Your task to perform on an android device: check storage Image 0: 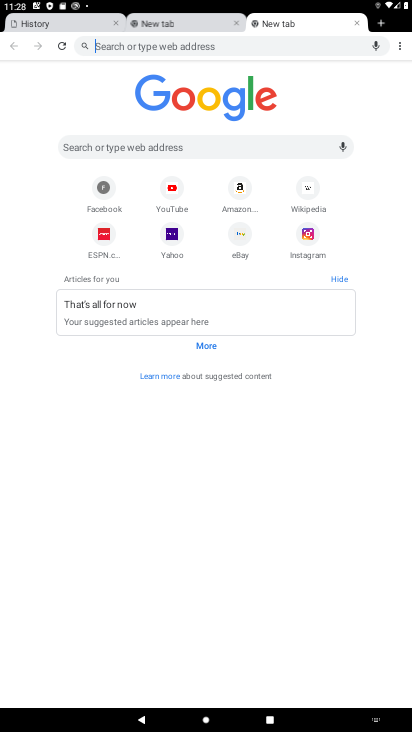
Step 0: press home button
Your task to perform on an android device: check storage Image 1: 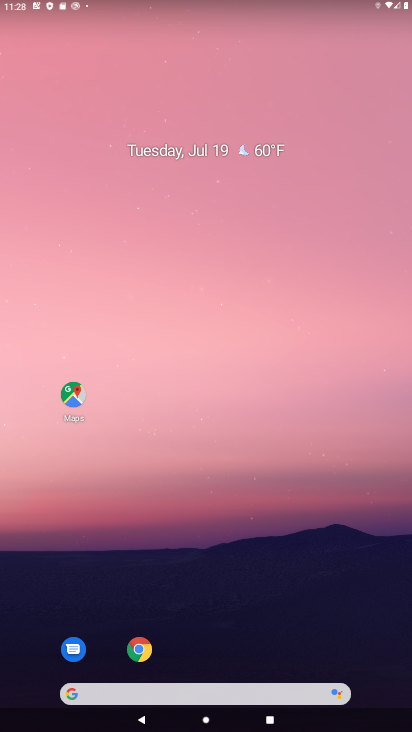
Step 1: drag from (189, 687) to (249, 92)
Your task to perform on an android device: check storage Image 2: 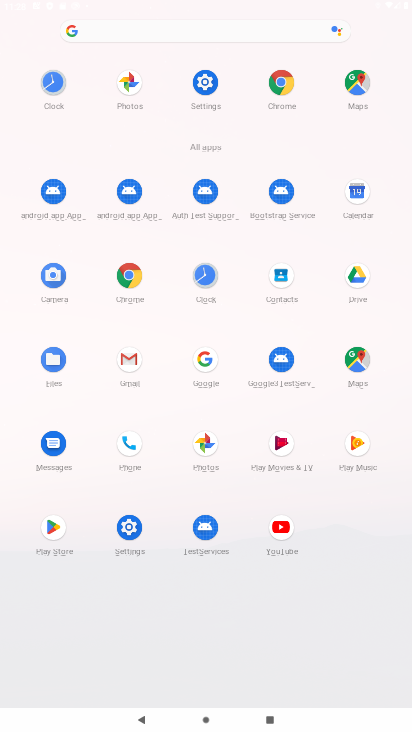
Step 2: click (196, 98)
Your task to perform on an android device: check storage Image 3: 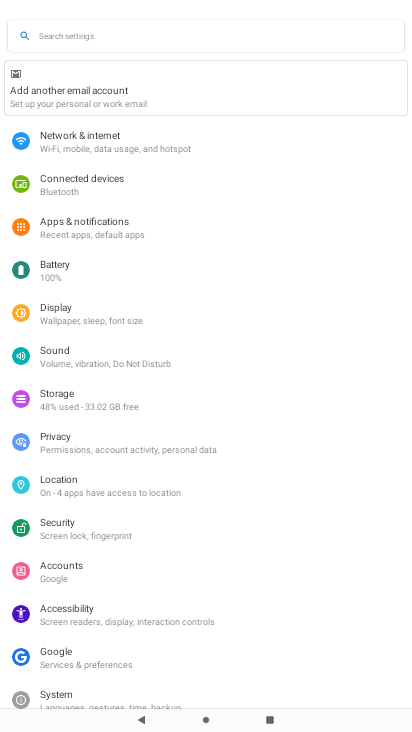
Step 3: click (62, 394)
Your task to perform on an android device: check storage Image 4: 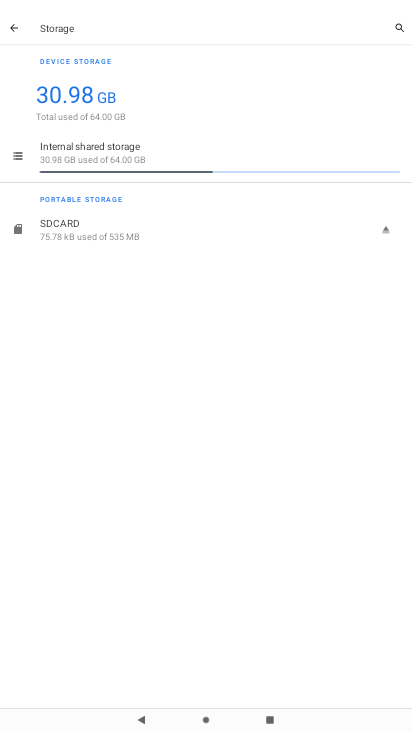
Step 4: task complete